Your task to perform on an android device: Open calendar and show me the fourth week of next month Image 0: 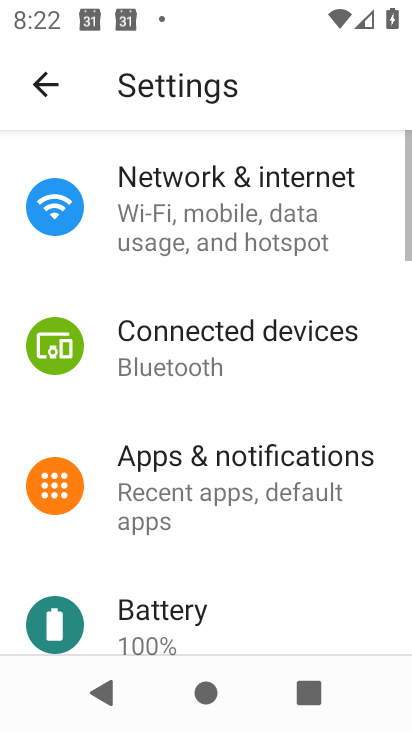
Step 0: press home button
Your task to perform on an android device: Open calendar and show me the fourth week of next month Image 1: 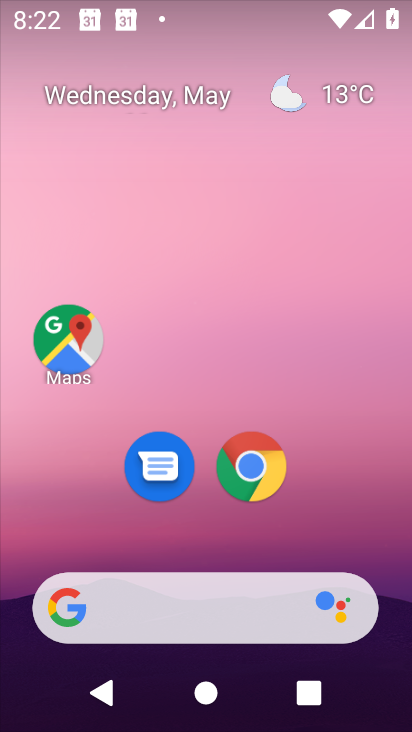
Step 1: drag from (204, 529) to (209, 54)
Your task to perform on an android device: Open calendar and show me the fourth week of next month Image 2: 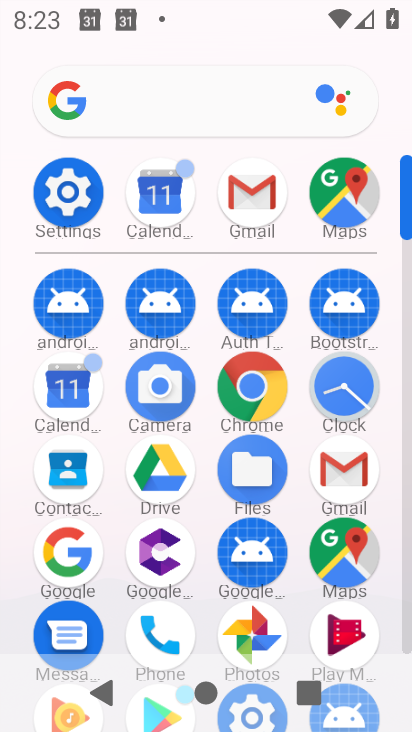
Step 2: click (66, 387)
Your task to perform on an android device: Open calendar and show me the fourth week of next month Image 3: 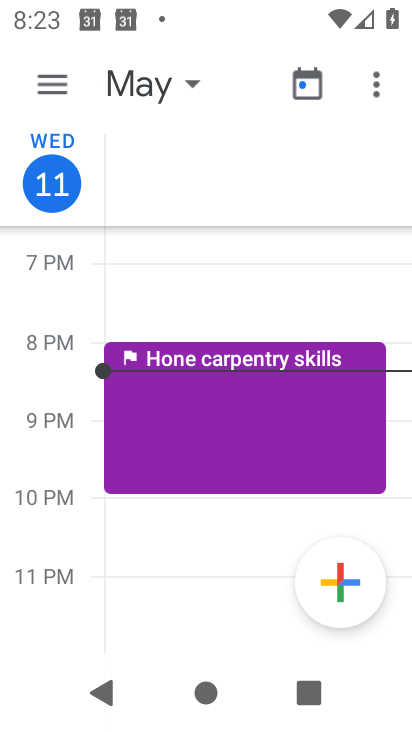
Step 3: click (51, 85)
Your task to perform on an android device: Open calendar and show me the fourth week of next month Image 4: 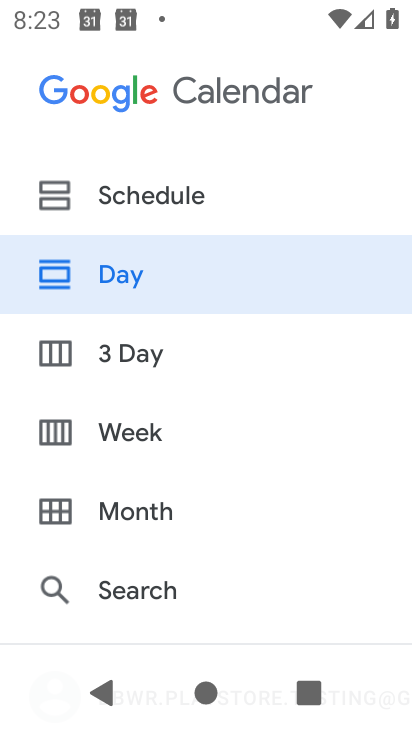
Step 4: click (107, 434)
Your task to perform on an android device: Open calendar and show me the fourth week of next month Image 5: 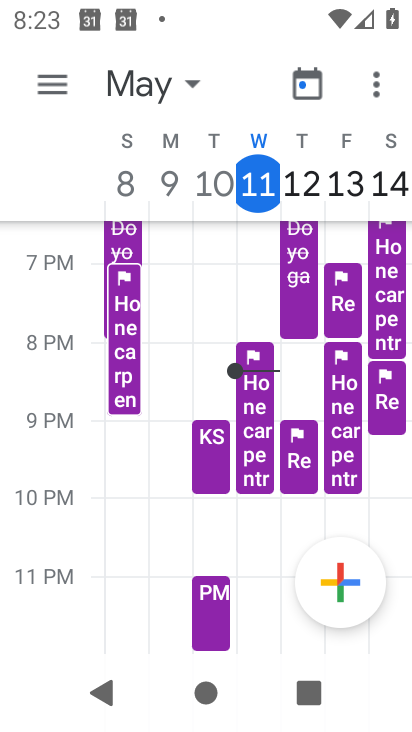
Step 5: drag from (378, 177) to (74, 171)
Your task to perform on an android device: Open calendar and show me the fourth week of next month Image 6: 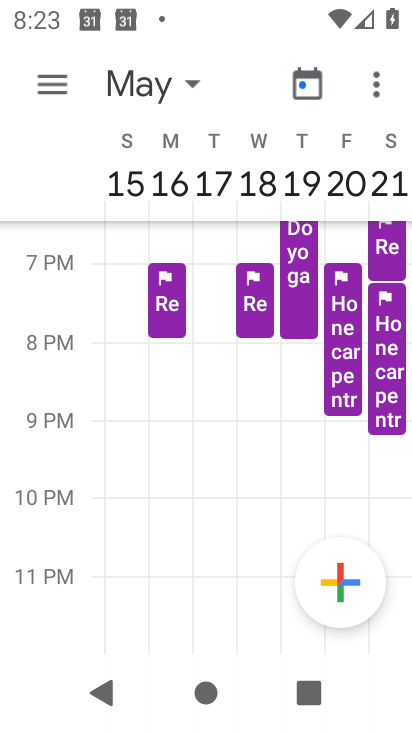
Step 6: drag from (387, 192) to (26, 189)
Your task to perform on an android device: Open calendar and show me the fourth week of next month Image 7: 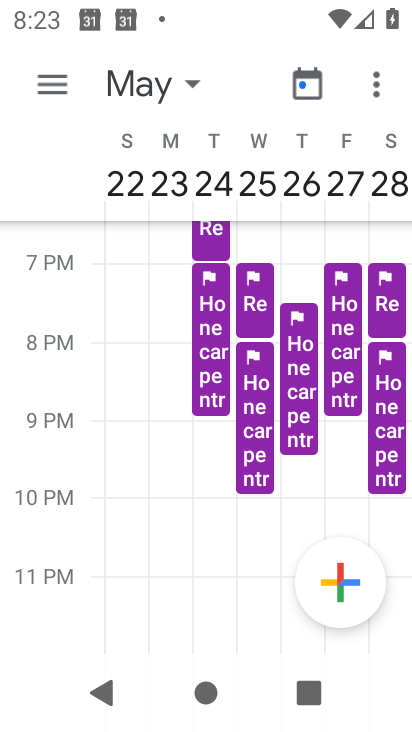
Step 7: drag from (390, 181) to (142, 187)
Your task to perform on an android device: Open calendar and show me the fourth week of next month Image 8: 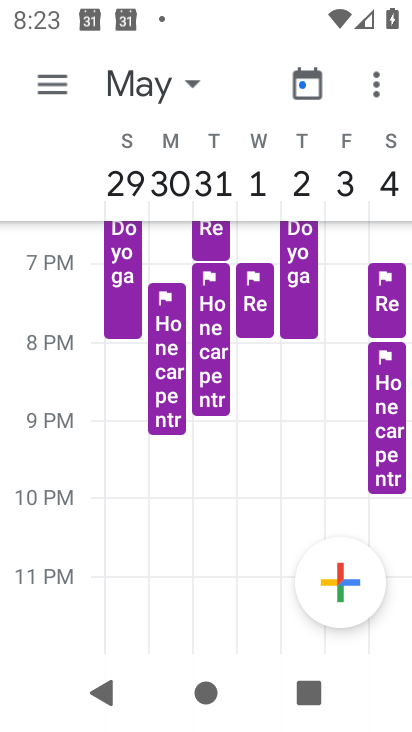
Step 8: drag from (381, 185) to (119, 190)
Your task to perform on an android device: Open calendar and show me the fourth week of next month Image 9: 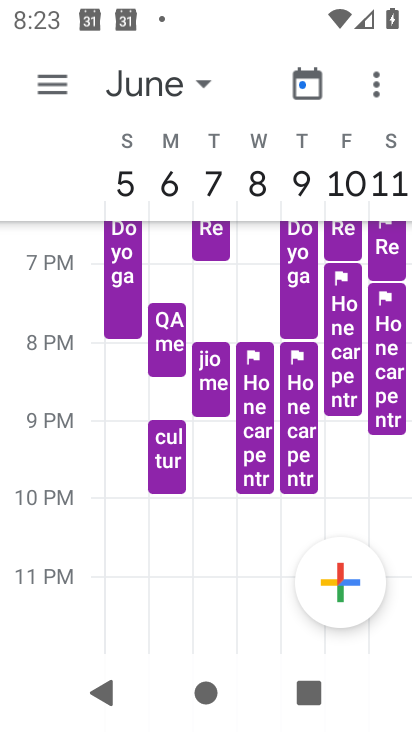
Step 9: drag from (386, 183) to (64, 179)
Your task to perform on an android device: Open calendar and show me the fourth week of next month Image 10: 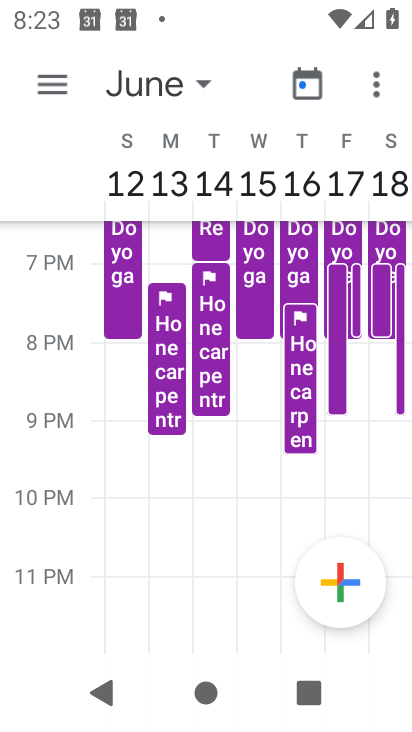
Step 10: drag from (385, 173) to (59, 187)
Your task to perform on an android device: Open calendar and show me the fourth week of next month Image 11: 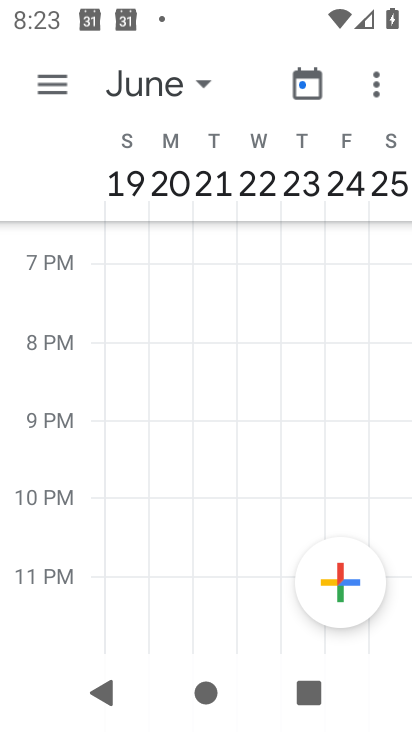
Step 11: click (120, 178)
Your task to perform on an android device: Open calendar and show me the fourth week of next month Image 12: 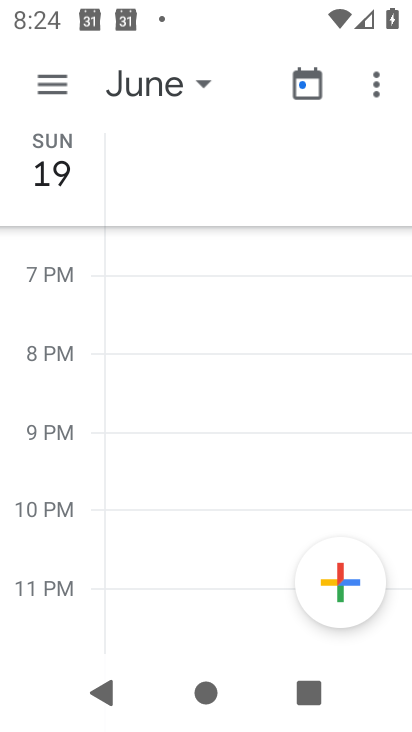
Step 12: click (81, 182)
Your task to perform on an android device: Open calendar and show me the fourth week of next month Image 13: 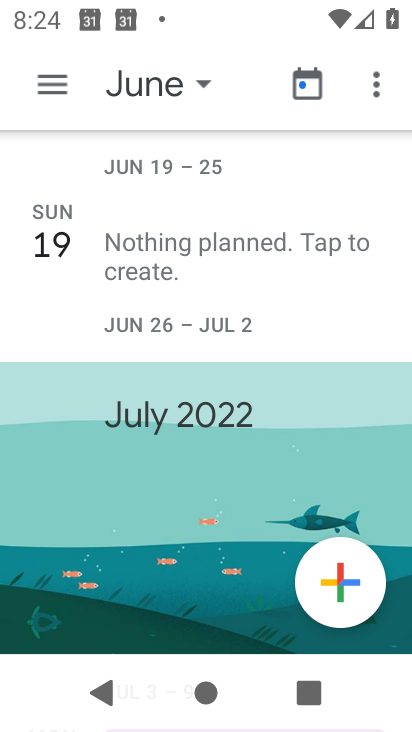
Step 13: task complete